Your task to perform on an android device: search for starred emails in the gmail app Image 0: 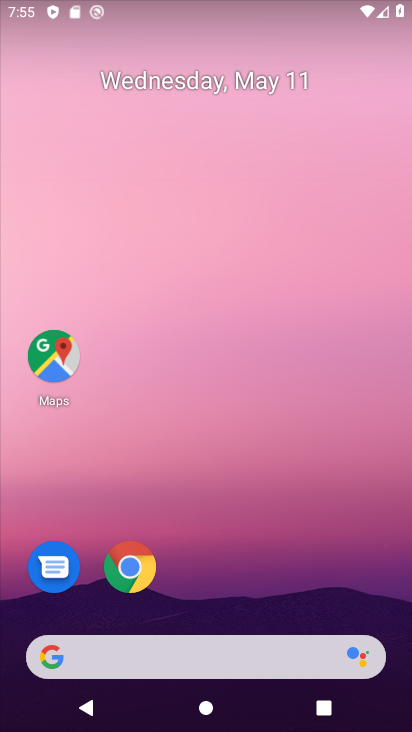
Step 0: drag from (246, 616) to (187, 22)
Your task to perform on an android device: search for starred emails in the gmail app Image 1: 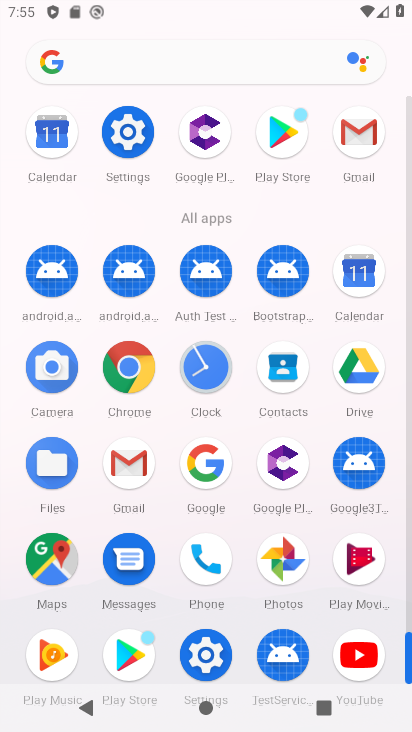
Step 1: click (139, 473)
Your task to perform on an android device: search for starred emails in the gmail app Image 2: 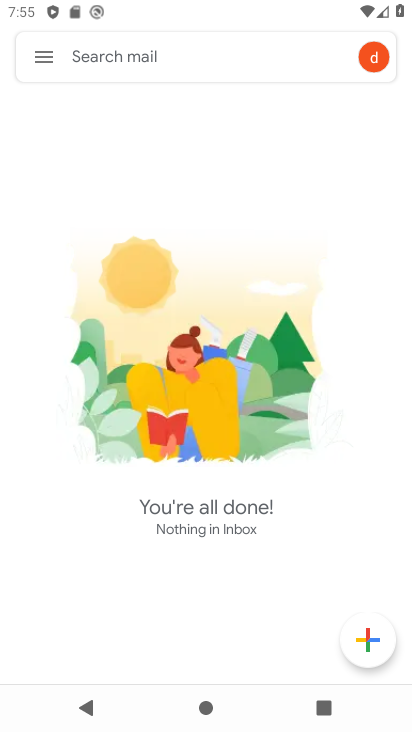
Step 2: click (48, 61)
Your task to perform on an android device: search for starred emails in the gmail app Image 3: 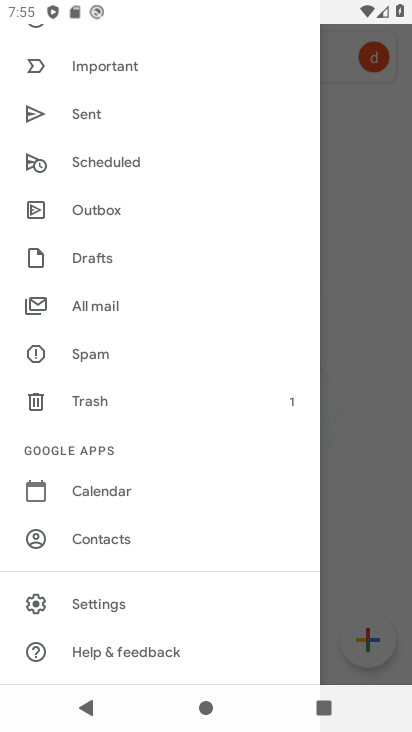
Step 3: drag from (88, 127) to (115, 594)
Your task to perform on an android device: search for starred emails in the gmail app Image 4: 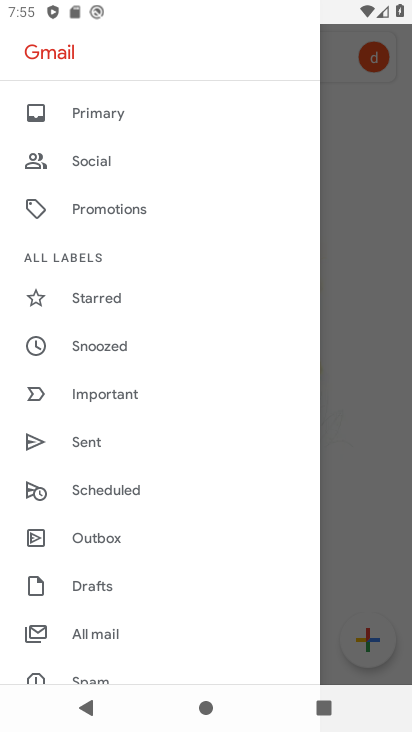
Step 4: click (102, 305)
Your task to perform on an android device: search for starred emails in the gmail app Image 5: 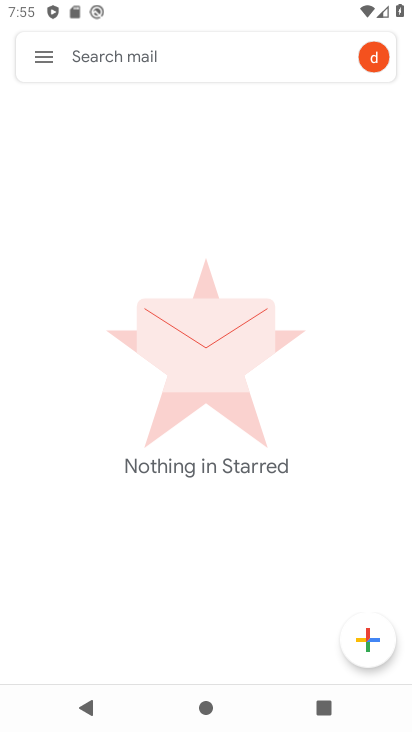
Step 5: task complete